Your task to perform on an android device: turn off javascript in the chrome app Image 0: 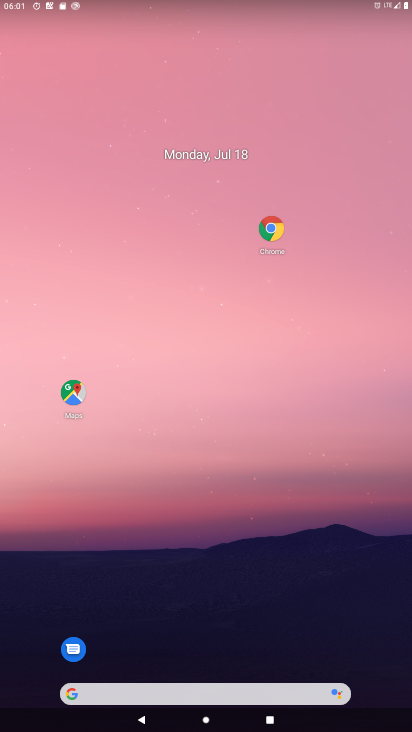
Step 0: click (277, 221)
Your task to perform on an android device: turn off javascript in the chrome app Image 1: 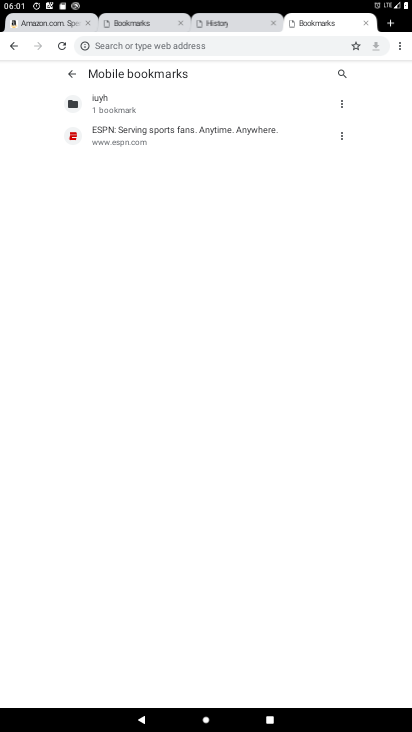
Step 1: click (405, 40)
Your task to perform on an android device: turn off javascript in the chrome app Image 2: 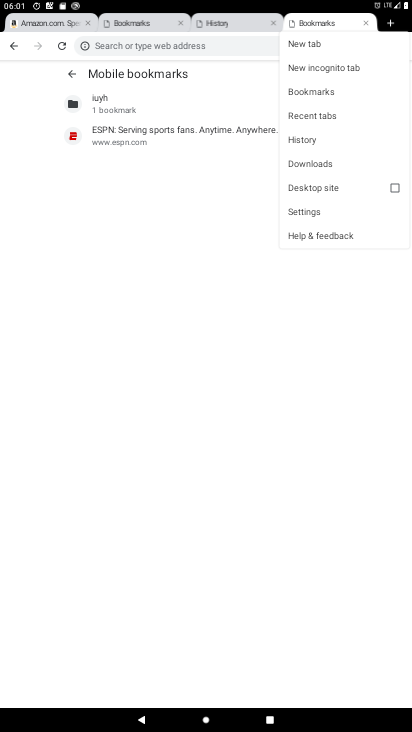
Step 2: click (328, 214)
Your task to perform on an android device: turn off javascript in the chrome app Image 3: 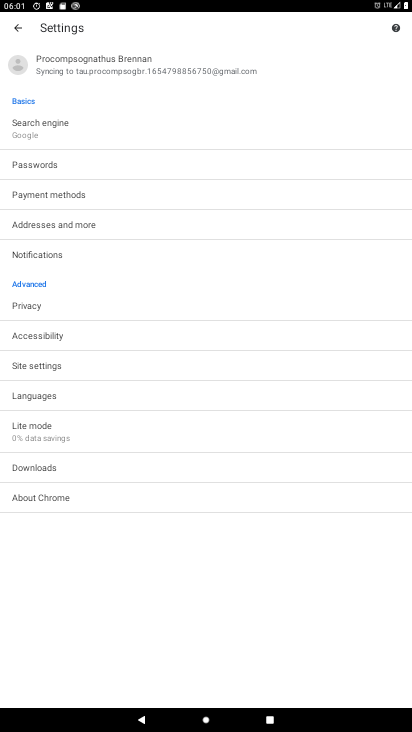
Step 3: click (142, 375)
Your task to perform on an android device: turn off javascript in the chrome app Image 4: 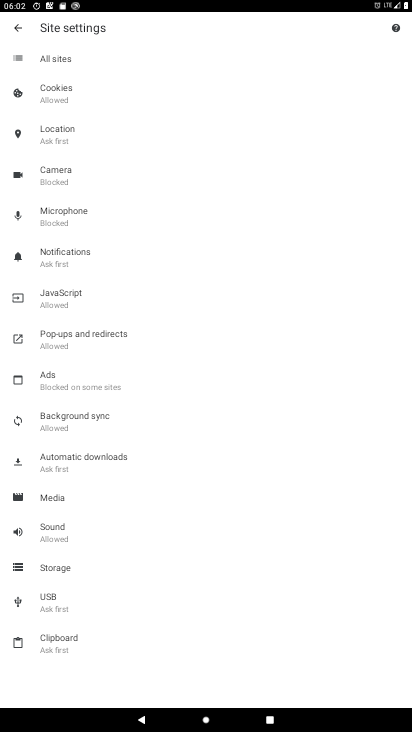
Step 4: click (65, 296)
Your task to perform on an android device: turn off javascript in the chrome app Image 5: 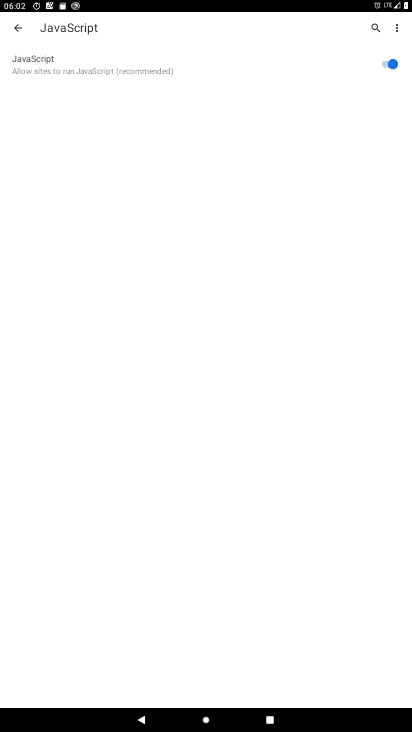
Step 5: click (392, 66)
Your task to perform on an android device: turn off javascript in the chrome app Image 6: 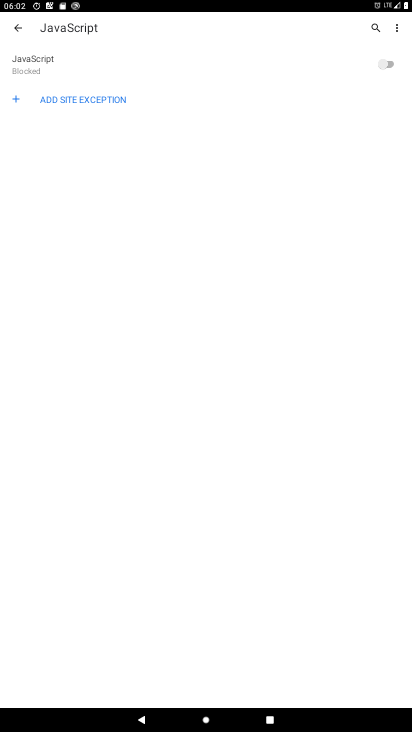
Step 6: task complete